Your task to perform on an android device: check out phone information Image 0: 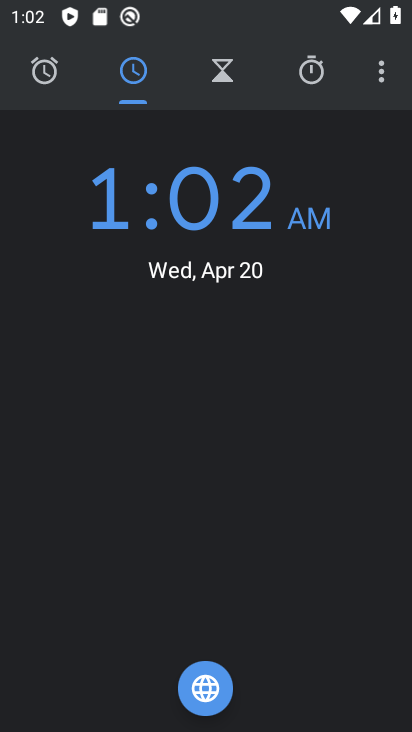
Step 0: press home button
Your task to perform on an android device: check out phone information Image 1: 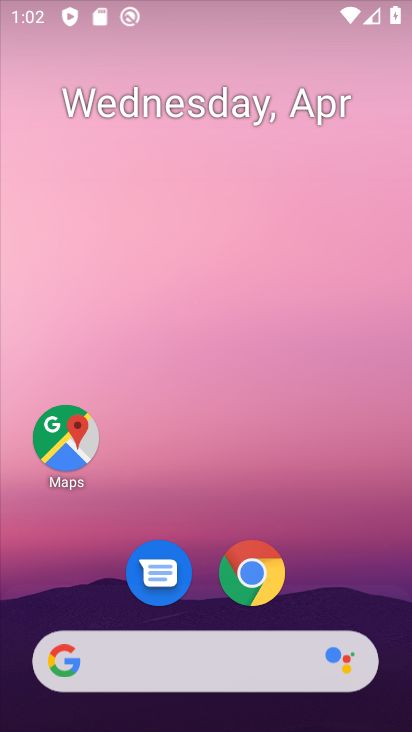
Step 1: drag from (298, 563) to (311, 14)
Your task to perform on an android device: check out phone information Image 2: 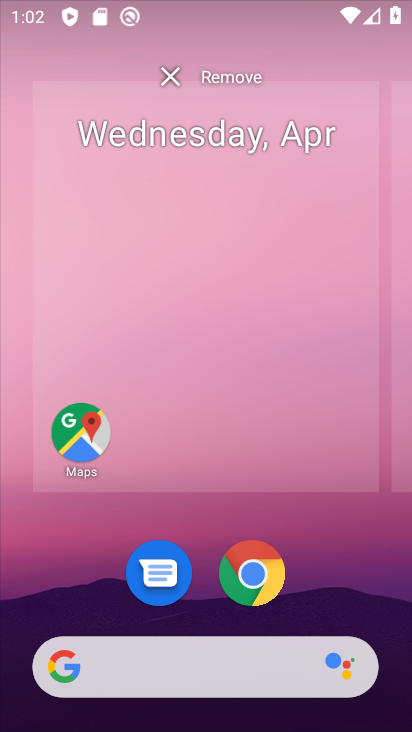
Step 2: drag from (313, 559) to (360, 8)
Your task to perform on an android device: check out phone information Image 3: 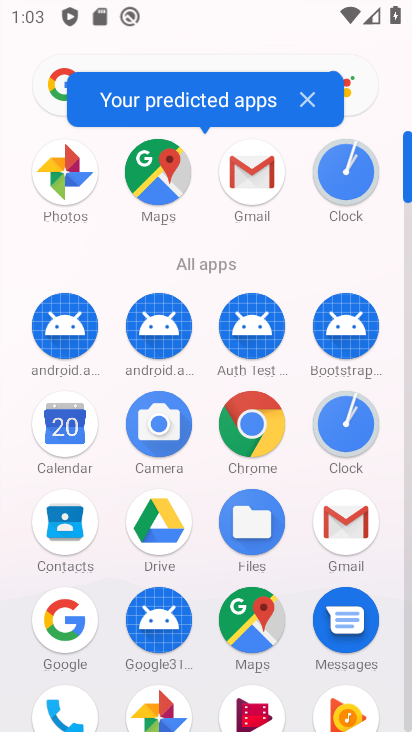
Step 3: drag from (194, 568) to (263, 55)
Your task to perform on an android device: check out phone information Image 4: 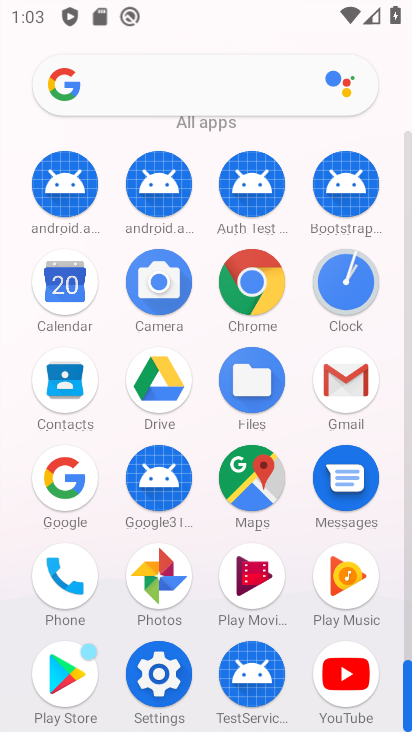
Step 4: click (158, 671)
Your task to perform on an android device: check out phone information Image 5: 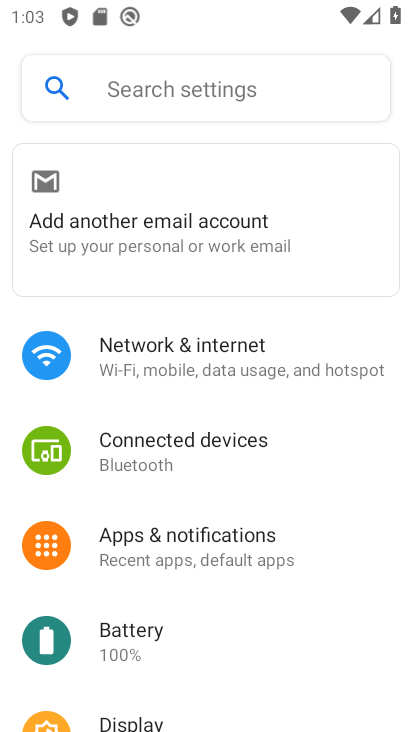
Step 5: drag from (180, 600) to (256, 266)
Your task to perform on an android device: check out phone information Image 6: 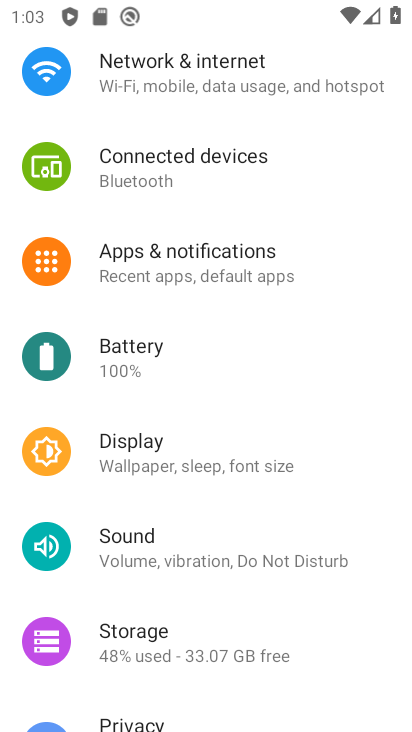
Step 6: drag from (188, 583) to (321, 88)
Your task to perform on an android device: check out phone information Image 7: 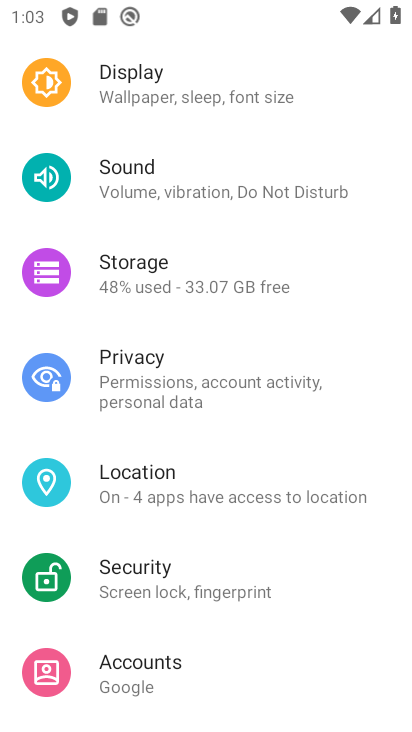
Step 7: drag from (152, 618) to (285, 116)
Your task to perform on an android device: check out phone information Image 8: 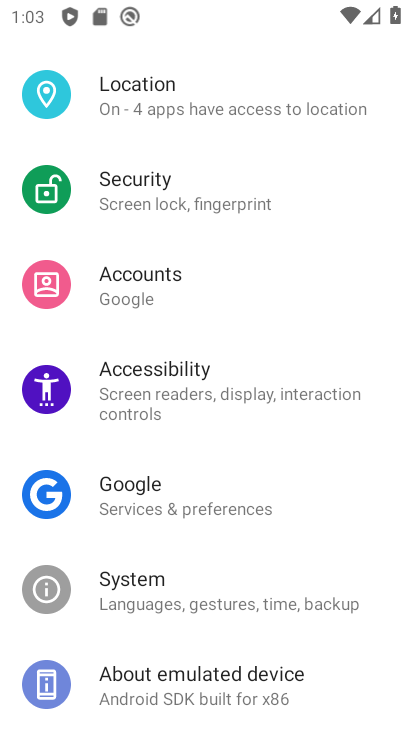
Step 8: click (176, 675)
Your task to perform on an android device: check out phone information Image 9: 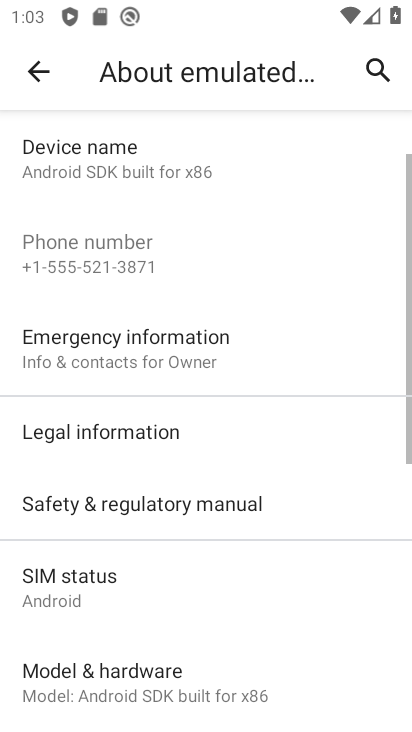
Step 9: task complete